Your task to perform on an android device: stop showing notifications on the lock screen Image 0: 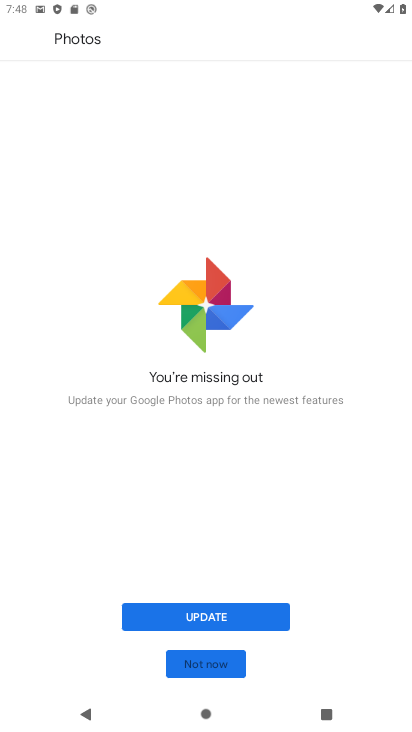
Step 0: press home button
Your task to perform on an android device: stop showing notifications on the lock screen Image 1: 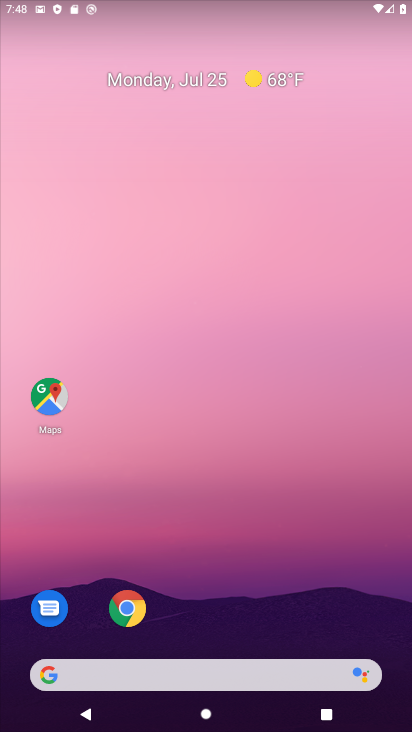
Step 1: drag from (254, 651) to (241, 8)
Your task to perform on an android device: stop showing notifications on the lock screen Image 2: 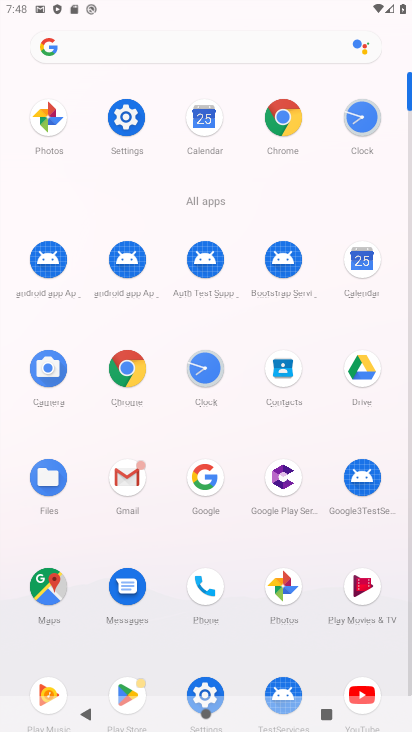
Step 2: click (122, 121)
Your task to perform on an android device: stop showing notifications on the lock screen Image 3: 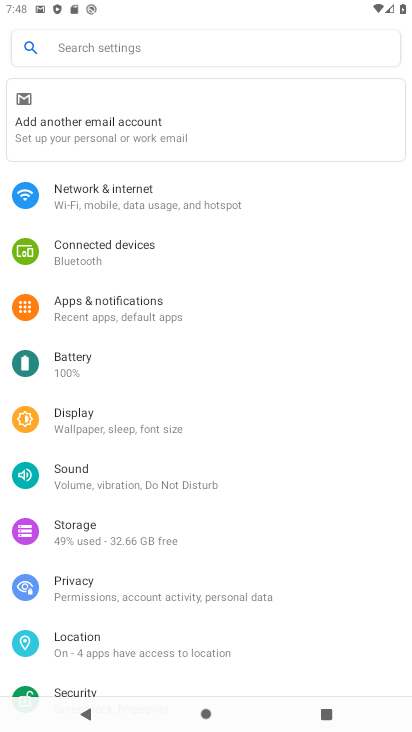
Step 3: click (117, 309)
Your task to perform on an android device: stop showing notifications on the lock screen Image 4: 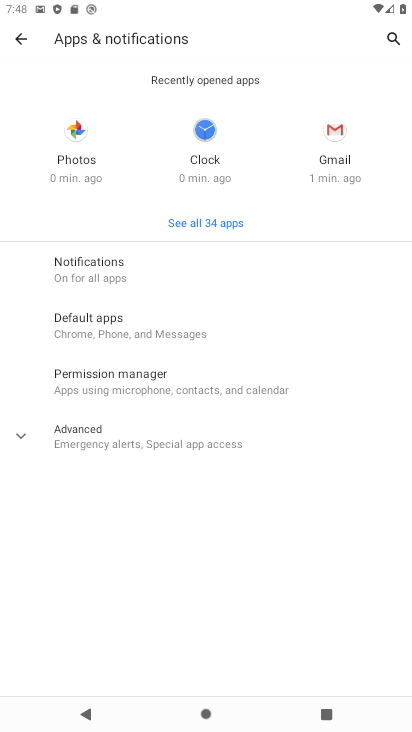
Step 4: click (89, 278)
Your task to perform on an android device: stop showing notifications on the lock screen Image 5: 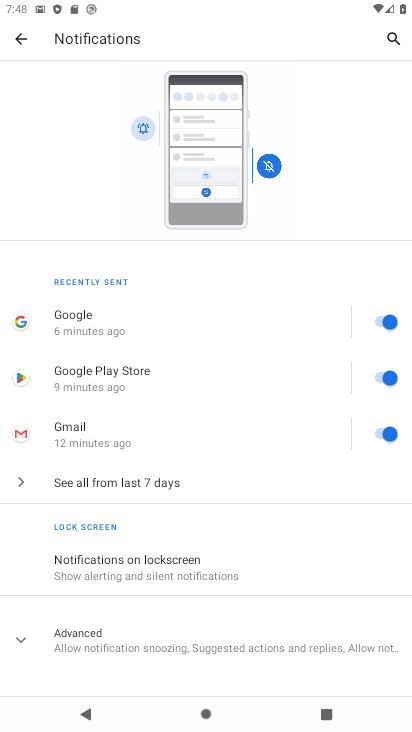
Step 5: click (119, 574)
Your task to perform on an android device: stop showing notifications on the lock screen Image 6: 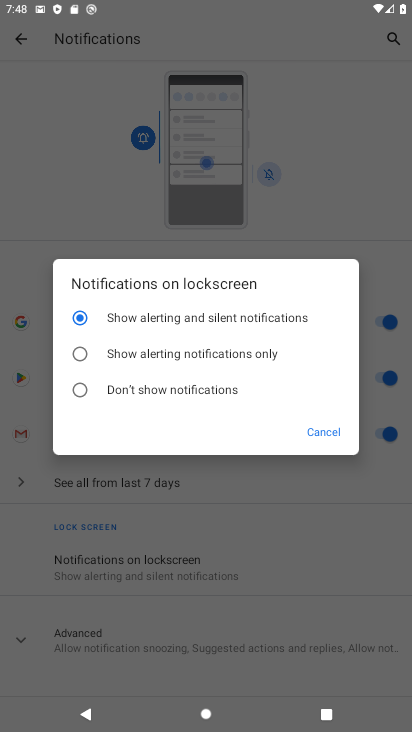
Step 6: click (82, 392)
Your task to perform on an android device: stop showing notifications on the lock screen Image 7: 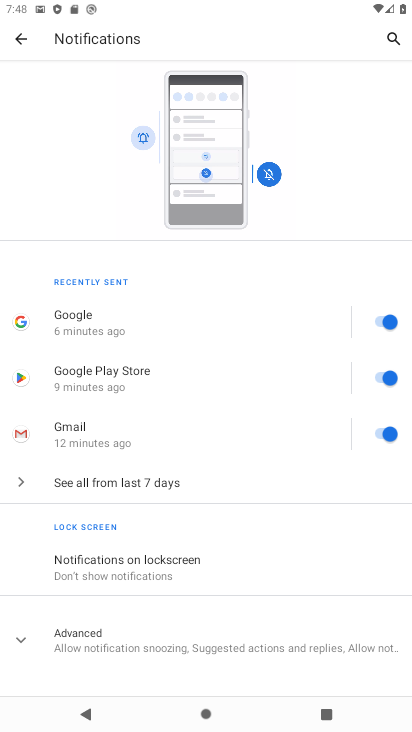
Step 7: task complete